Your task to perform on an android device: clear all cookies in the chrome app Image 0: 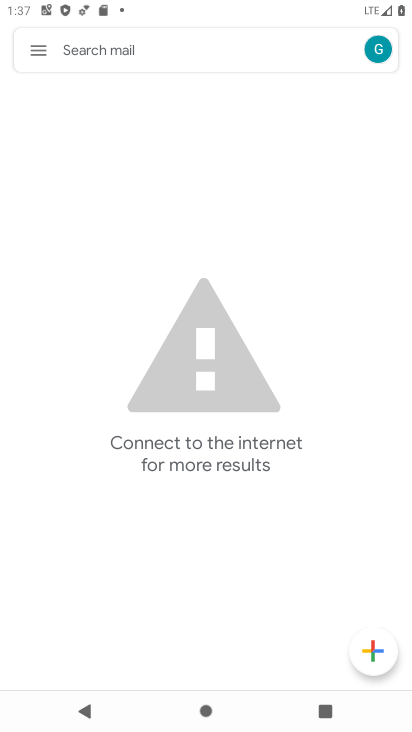
Step 0: press home button
Your task to perform on an android device: clear all cookies in the chrome app Image 1: 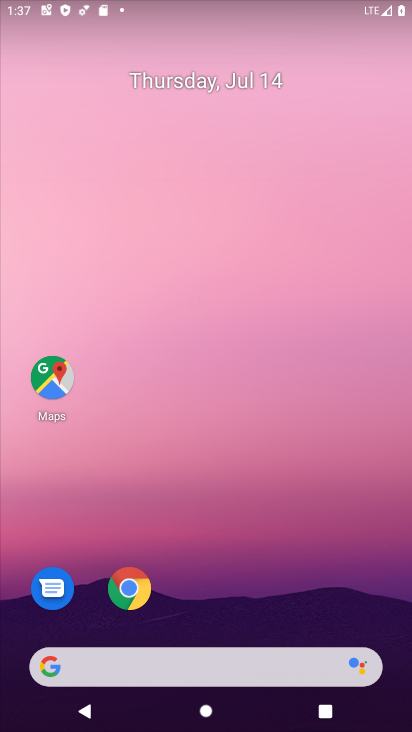
Step 1: click (142, 593)
Your task to perform on an android device: clear all cookies in the chrome app Image 2: 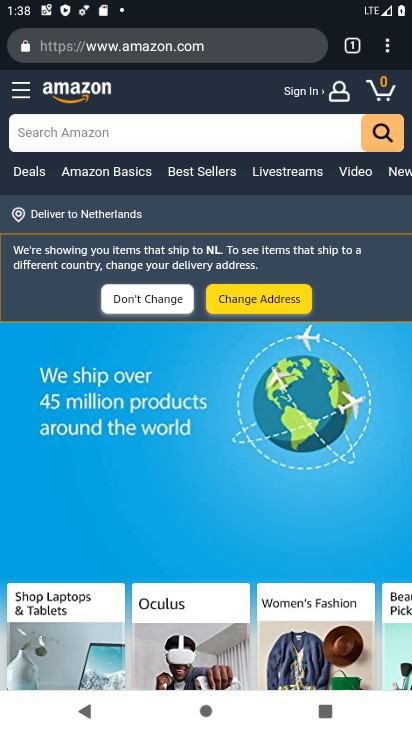
Step 2: click (392, 42)
Your task to perform on an android device: clear all cookies in the chrome app Image 3: 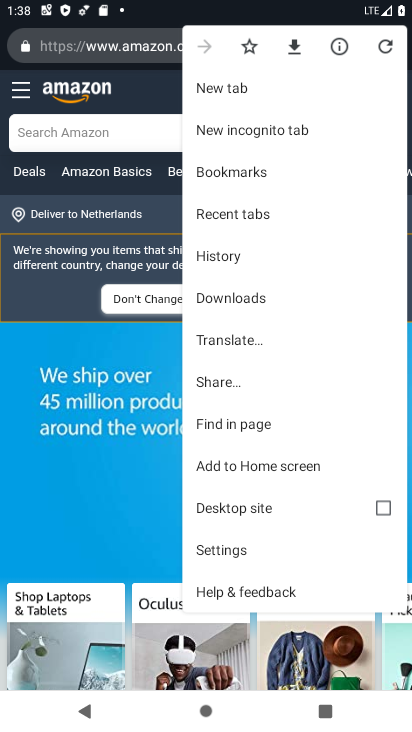
Step 3: click (239, 243)
Your task to perform on an android device: clear all cookies in the chrome app Image 4: 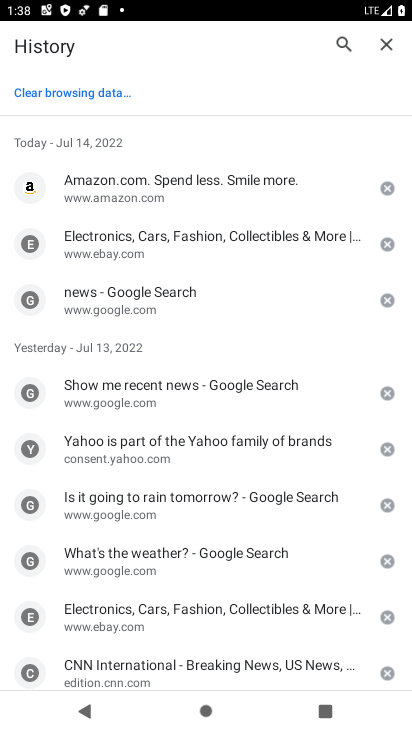
Step 4: click (66, 95)
Your task to perform on an android device: clear all cookies in the chrome app Image 5: 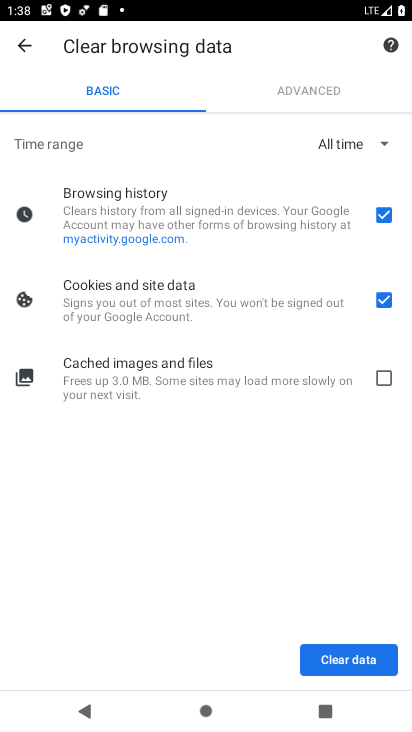
Step 5: click (369, 216)
Your task to perform on an android device: clear all cookies in the chrome app Image 6: 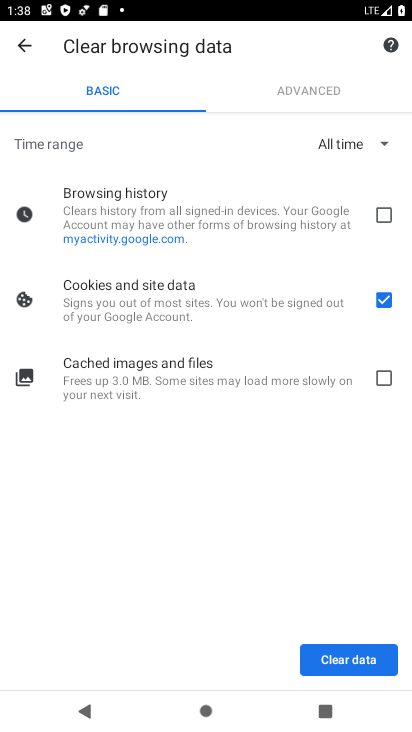
Step 6: click (371, 666)
Your task to perform on an android device: clear all cookies in the chrome app Image 7: 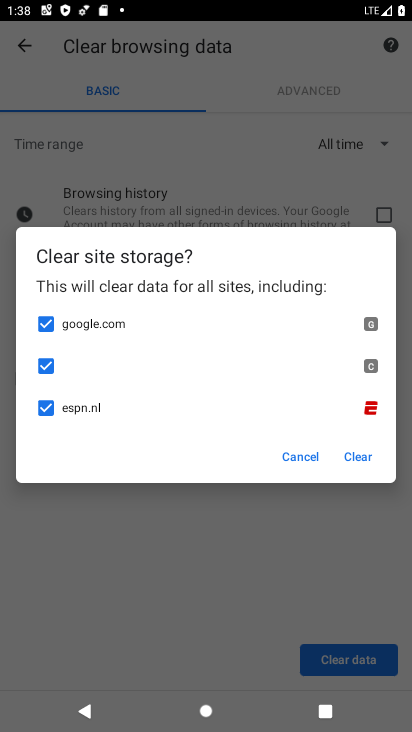
Step 7: click (370, 461)
Your task to perform on an android device: clear all cookies in the chrome app Image 8: 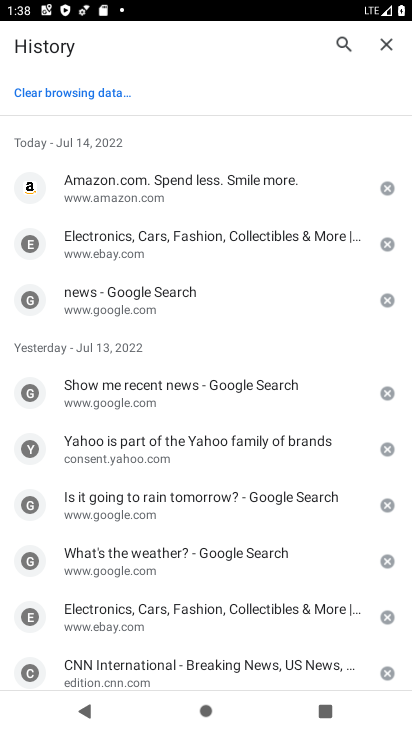
Step 8: task complete